Your task to perform on an android device: Search for pizza restaurants on Maps Image 0: 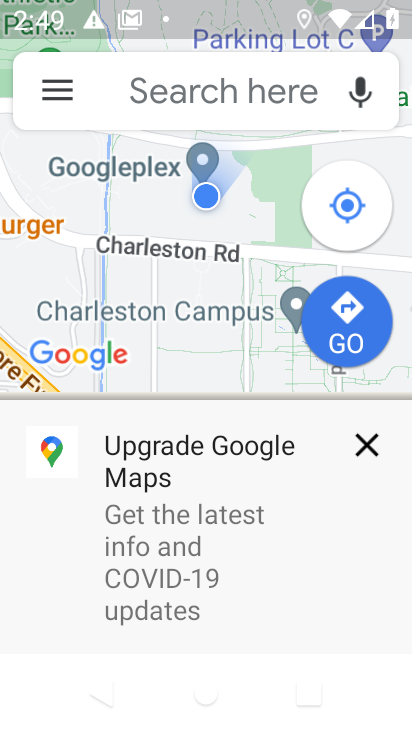
Step 0: click (369, 449)
Your task to perform on an android device: Search for pizza restaurants on Maps Image 1: 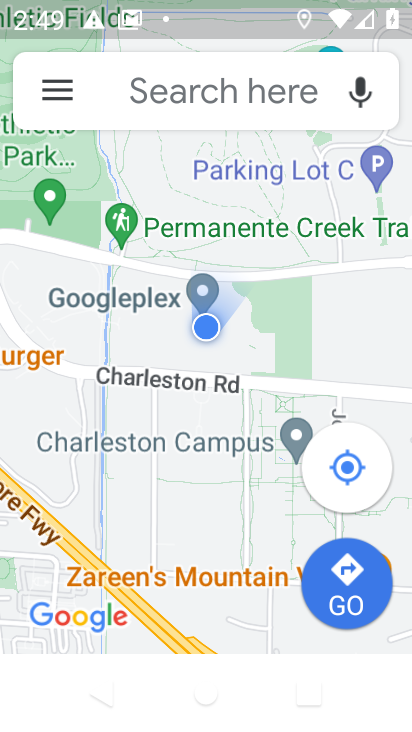
Step 1: task complete